Your task to perform on an android device: Open the calendar and show me this week's events? Image 0: 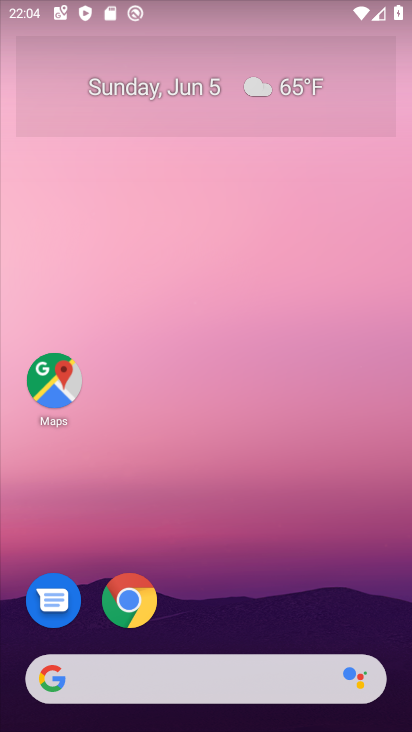
Step 0: drag from (310, 534) to (323, 113)
Your task to perform on an android device: Open the calendar and show me this week's events? Image 1: 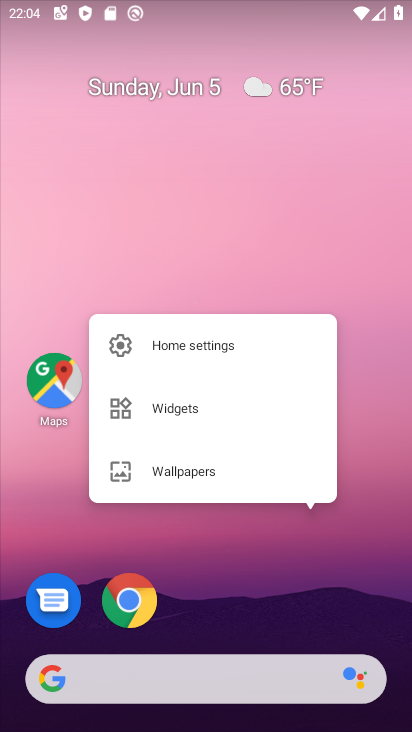
Step 1: click (365, 562)
Your task to perform on an android device: Open the calendar and show me this week's events? Image 2: 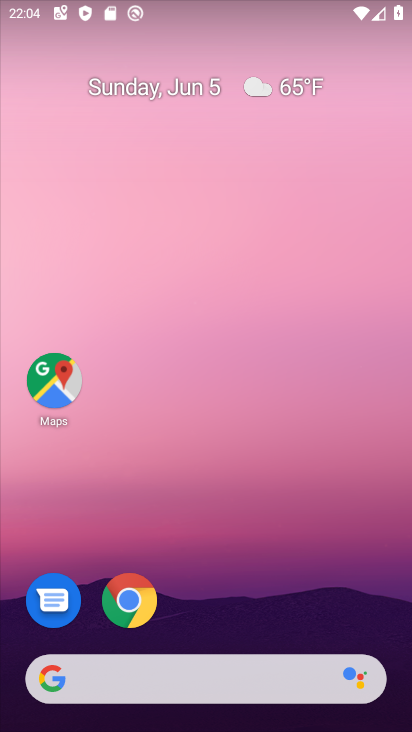
Step 2: drag from (336, 605) to (358, 168)
Your task to perform on an android device: Open the calendar and show me this week's events? Image 3: 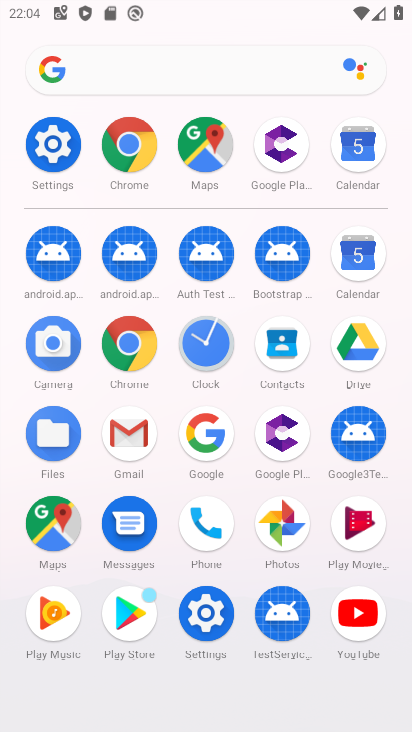
Step 3: click (366, 251)
Your task to perform on an android device: Open the calendar and show me this week's events? Image 4: 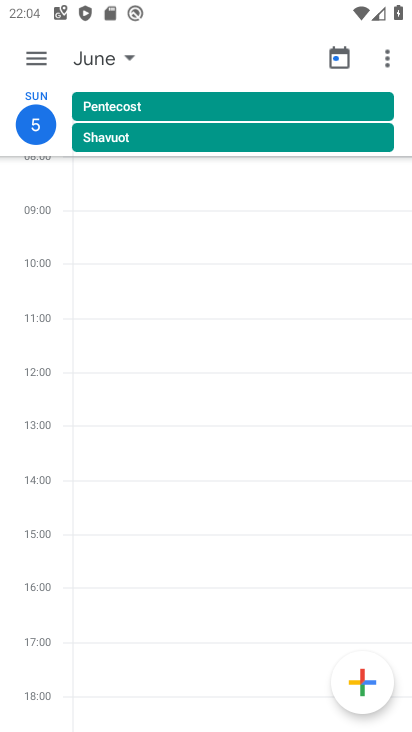
Step 4: click (102, 65)
Your task to perform on an android device: Open the calendar and show me this week's events? Image 5: 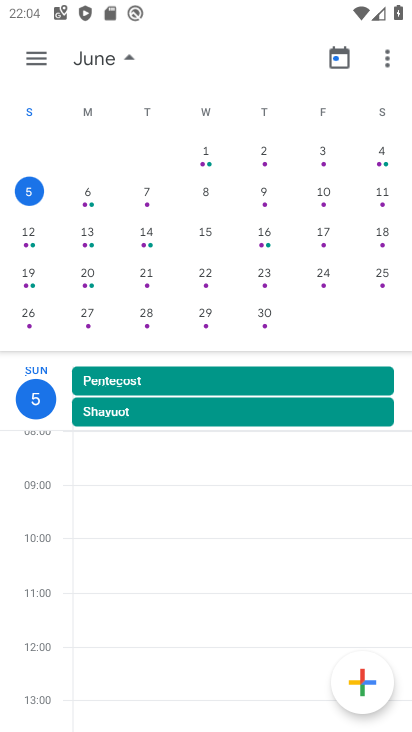
Step 5: click (28, 62)
Your task to perform on an android device: Open the calendar and show me this week's events? Image 6: 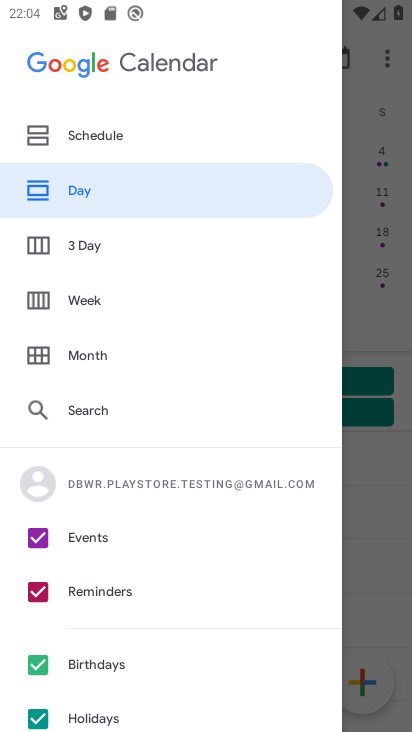
Step 6: click (84, 307)
Your task to perform on an android device: Open the calendar and show me this week's events? Image 7: 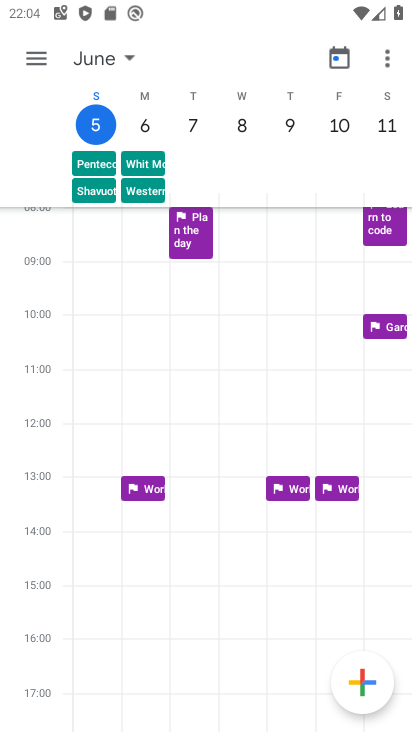
Step 7: task complete